Your task to perform on an android device: Search for pizza restaurants on Maps Image 0: 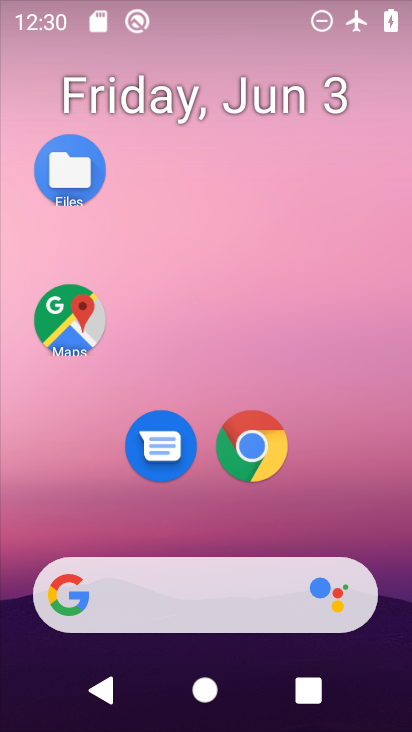
Step 0: click (165, 169)
Your task to perform on an android device: Search for pizza restaurants on Maps Image 1: 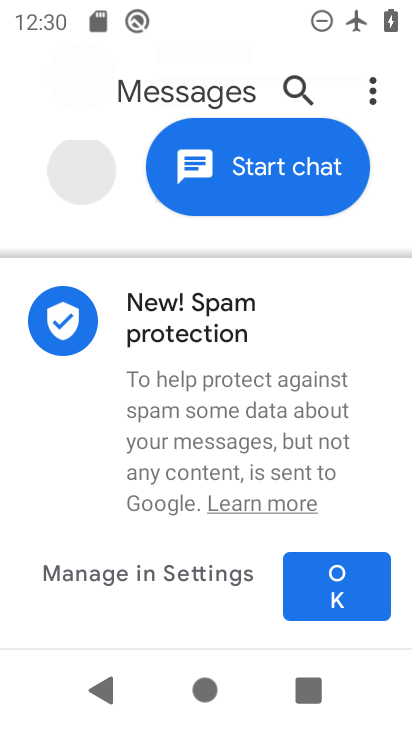
Step 1: drag from (243, 617) to (142, 367)
Your task to perform on an android device: Search for pizza restaurants on Maps Image 2: 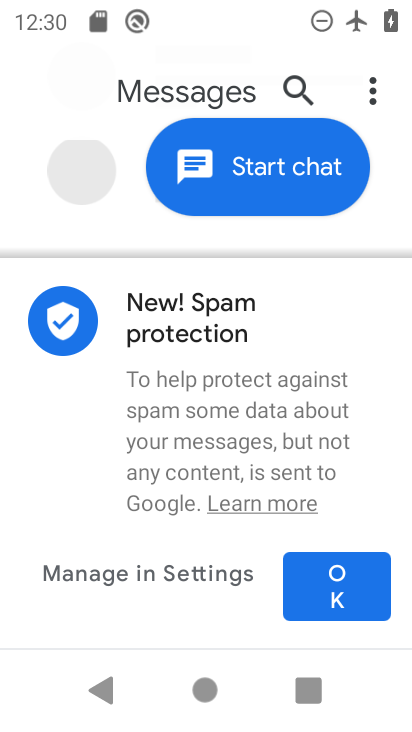
Step 2: press back button
Your task to perform on an android device: Search for pizza restaurants on Maps Image 3: 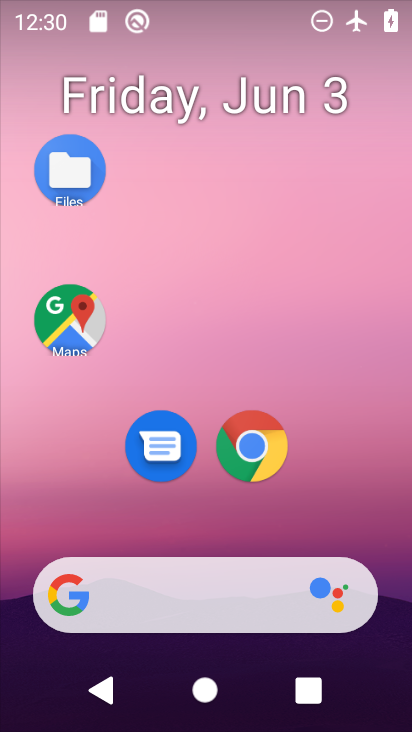
Step 3: drag from (246, 675) to (159, 228)
Your task to perform on an android device: Search for pizza restaurants on Maps Image 4: 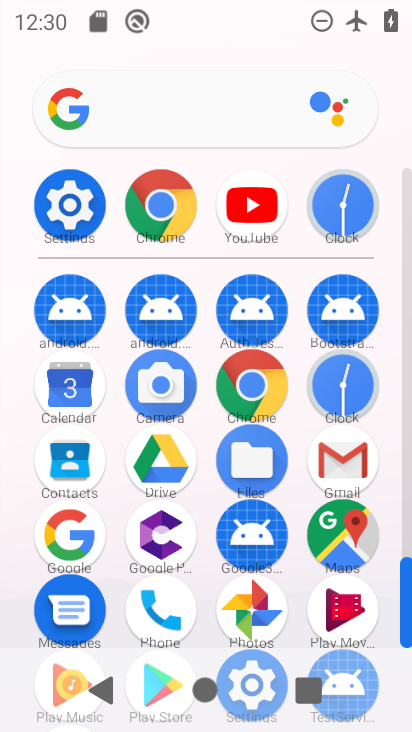
Step 4: click (337, 525)
Your task to perform on an android device: Search for pizza restaurants on Maps Image 5: 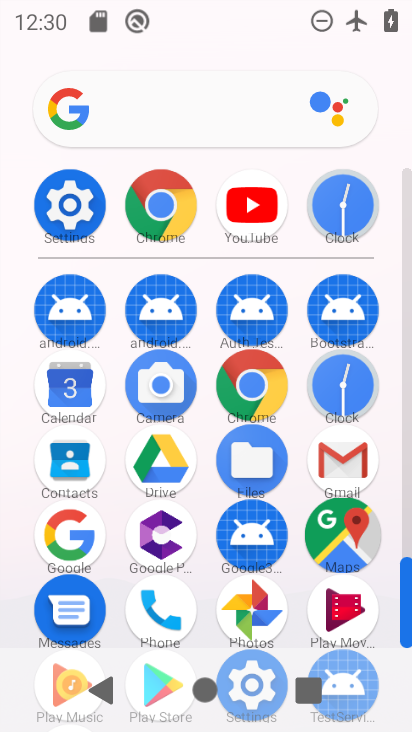
Step 5: click (338, 526)
Your task to perform on an android device: Search for pizza restaurants on Maps Image 6: 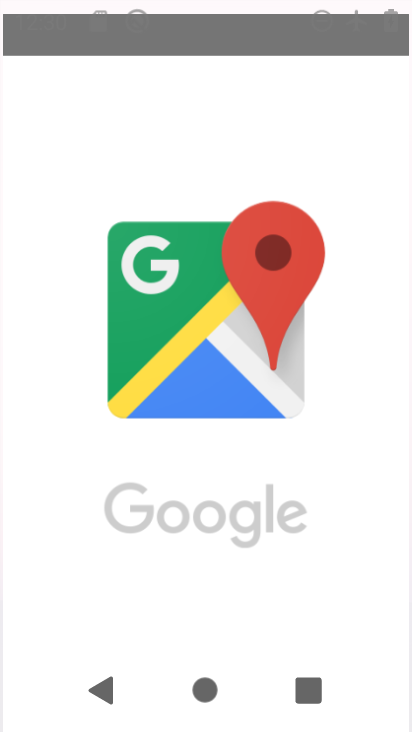
Step 6: click (338, 526)
Your task to perform on an android device: Search for pizza restaurants on Maps Image 7: 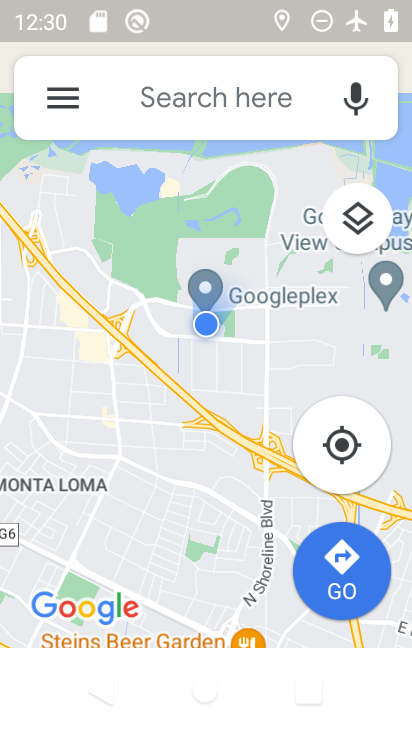
Step 7: click (136, 78)
Your task to perform on an android device: Search for pizza restaurants on Maps Image 8: 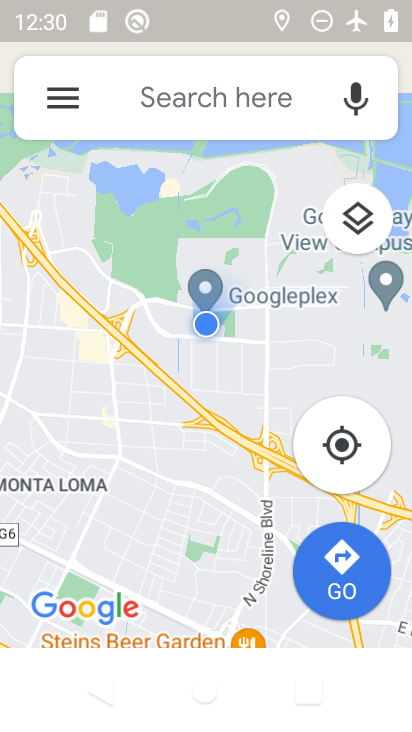
Step 8: click (138, 86)
Your task to perform on an android device: Search for pizza restaurants on Maps Image 9: 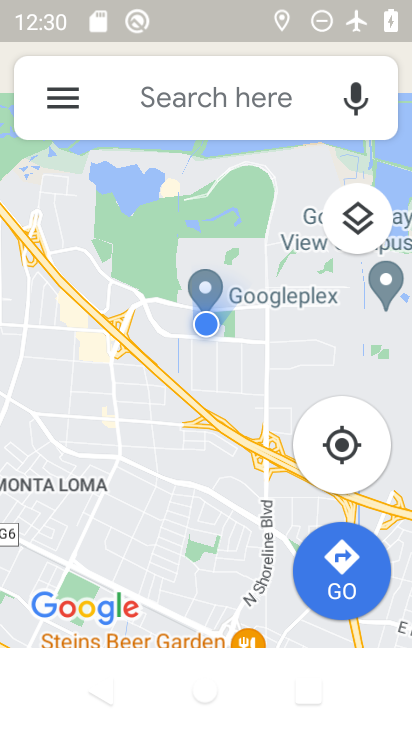
Step 9: click (139, 87)
Your task to perform on an android device: Search for pizza restaurants on Maps Image 10: 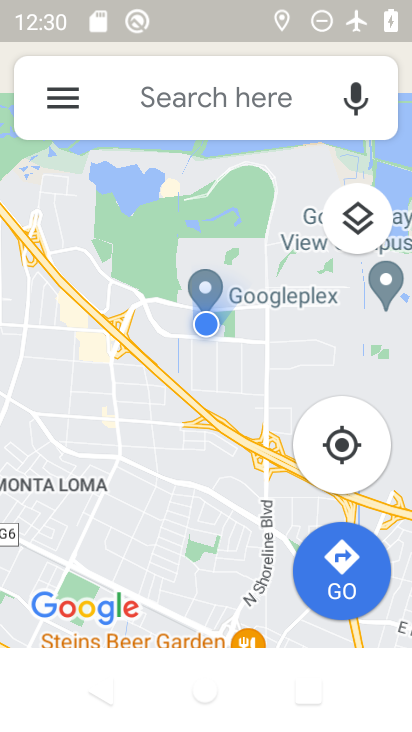
Step 10: click (88, 90)
Your task to perform on an android device: Search for pizza restaurants on Maps Image 11: 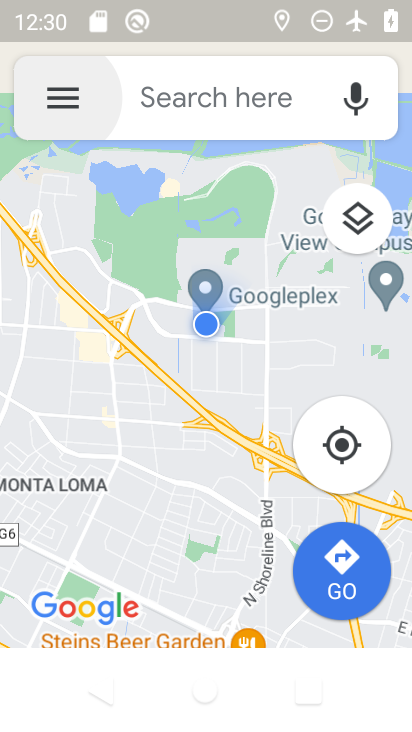
Step 11: click (94, 90)
Your task to perform on an android device: Search for pizza restaurants on Maps Image 12: 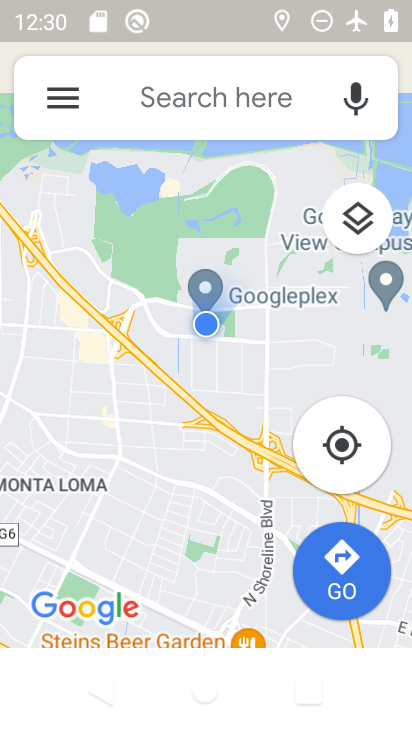
Step 12: click (150, 71)
Your task to perform on an android device: Search for pizza restaurants on Maps Image 13: 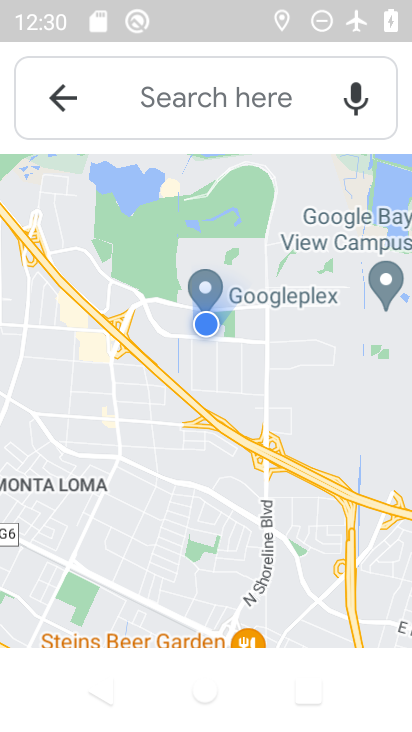
Step 13: click (157, 111)
Your task to perform on an android device: Search for pizza restaurants on Maps Image 14: 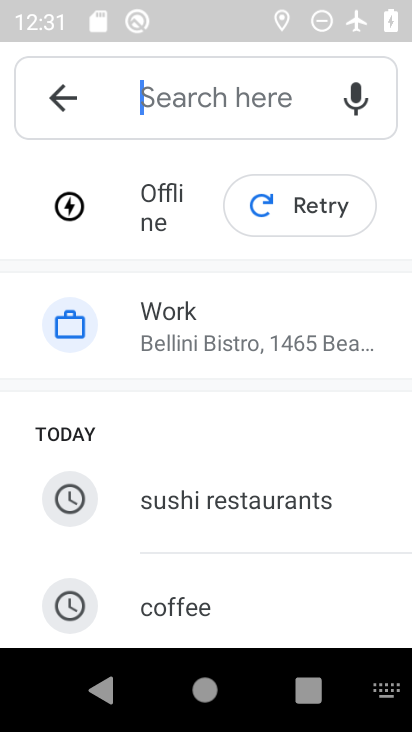
Step 14: type "pizza resturants"
Your task to perform on an android device: Search for pizza restaurants on Maps Image 15: 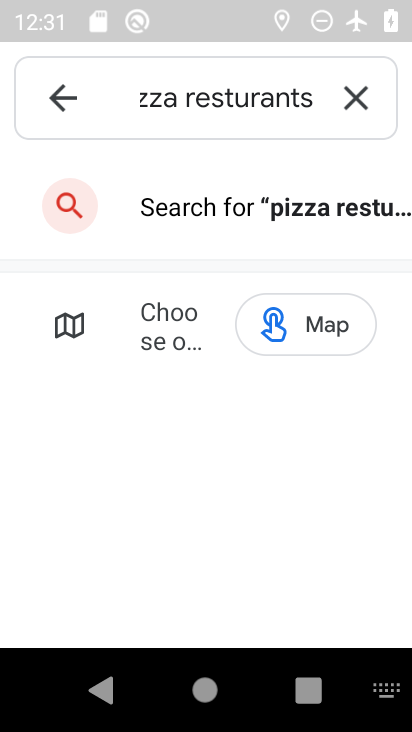
Step 15: click (303, 204)
Your task to perform on an android device: Search for pizza restaurants on Maps Image 16: 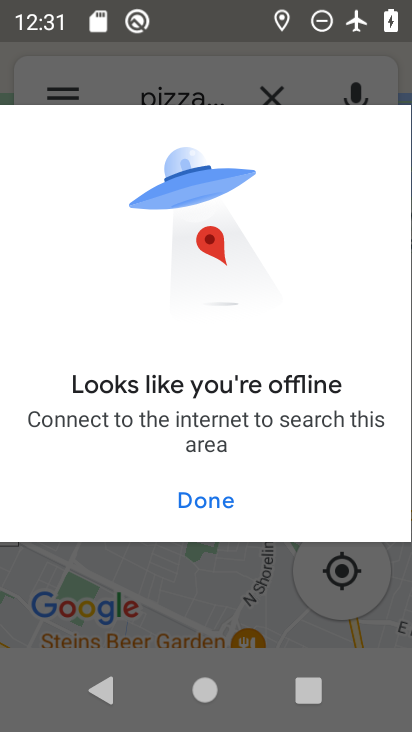
Step 16: task complete